Your task to perform on an android device: install app "Messenger Lite" Image 0: 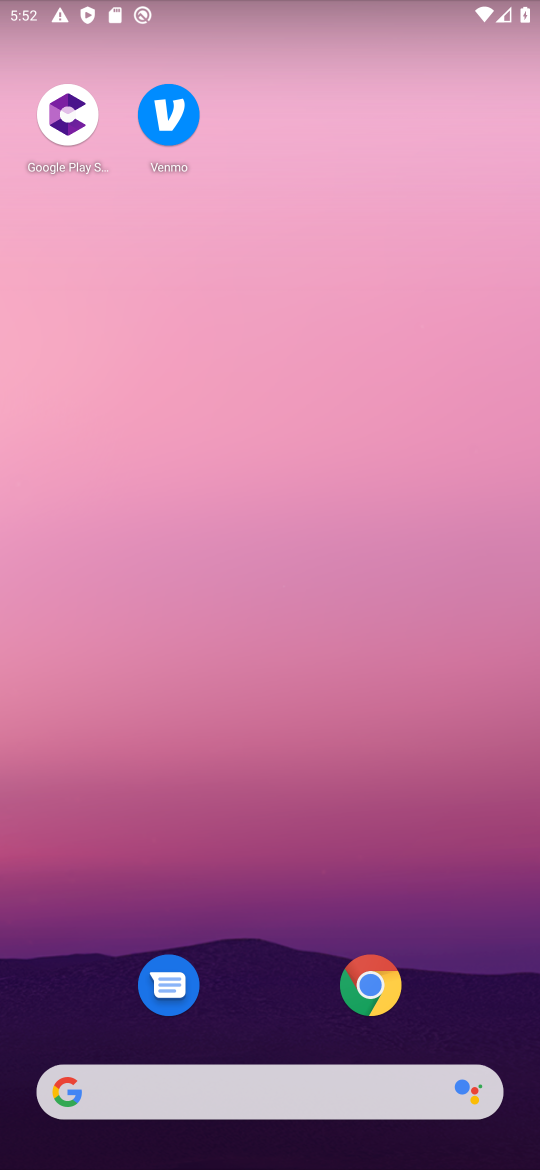
Step 0: drag from (241, 854) to (200, 311)
Your task to perform on an android device: install app "Messenger Lite" Image 1: 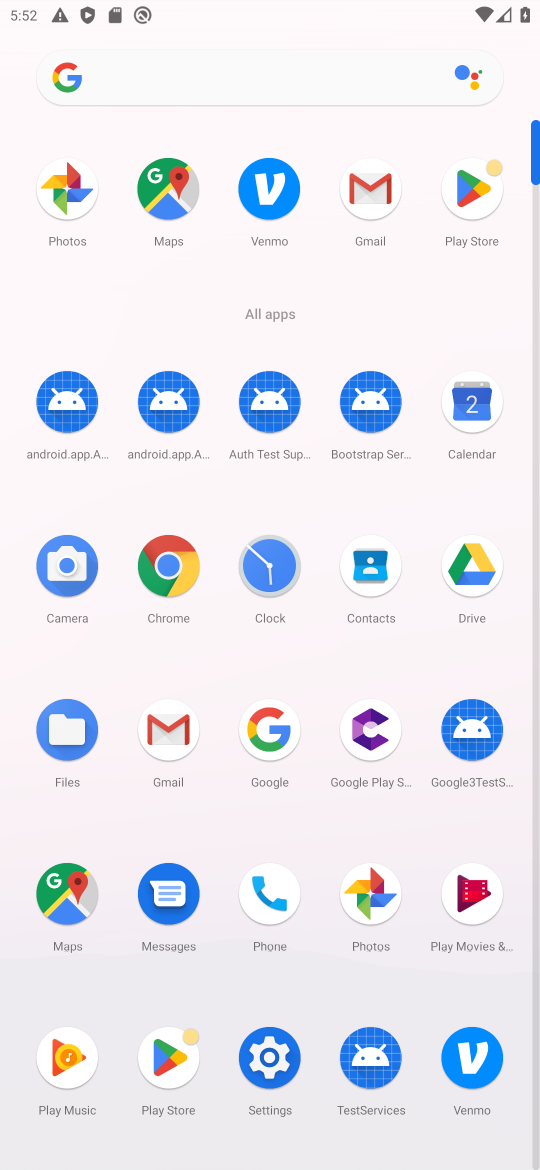
Step 1: click (443, 212)
Your task to perform on an android device: install app "Messenger Lite" Image 2: 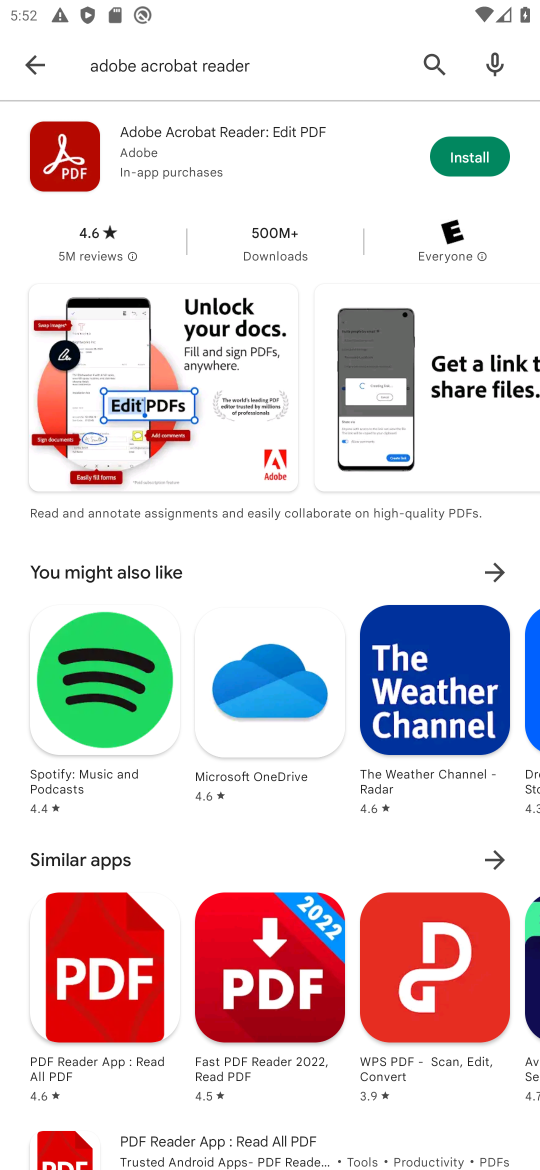
Step 2: click (438, 61)
Your task to perform on an android device: install app "Messenger Lite" Image 3: 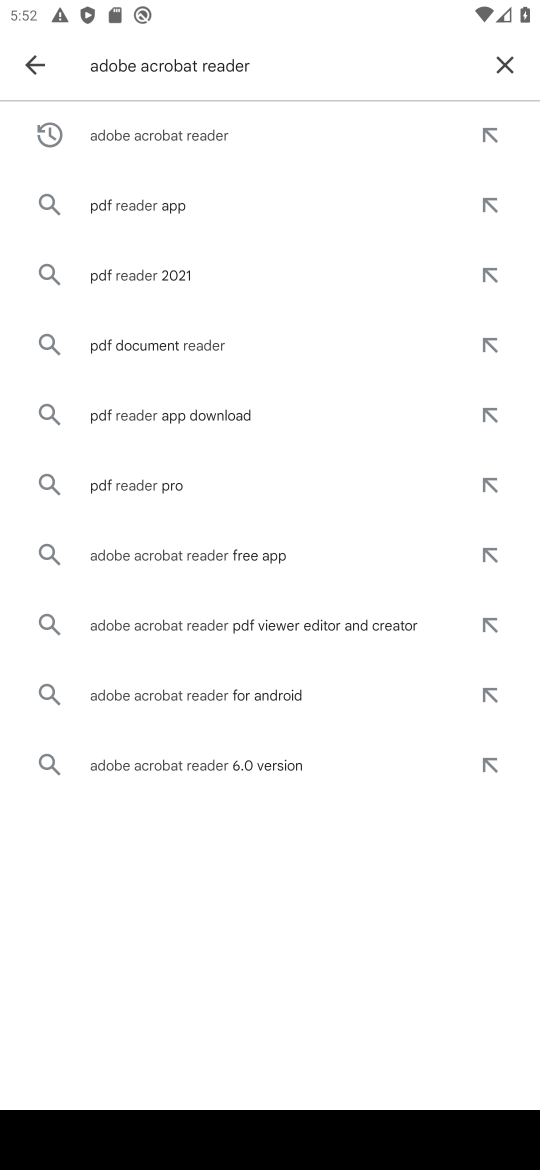
Step 3: click (505, 75)
Your task to perform on an android device: install app "Messenger Lite" Image 4: 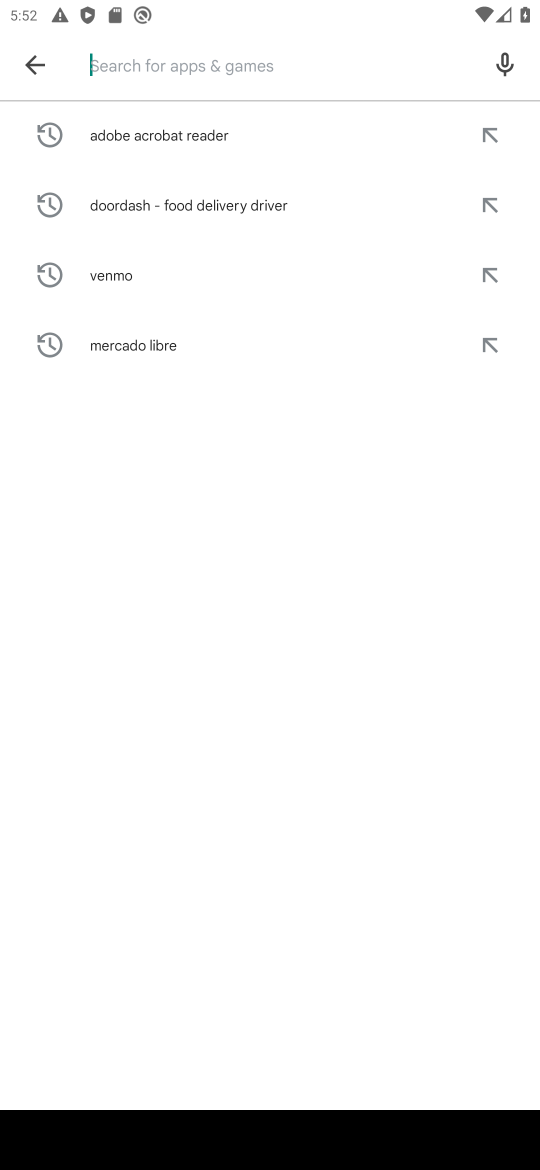
Step 4: type "Messenger Lite"
Your task to perform on an android device: install app "Messenger Lite" Image 5: 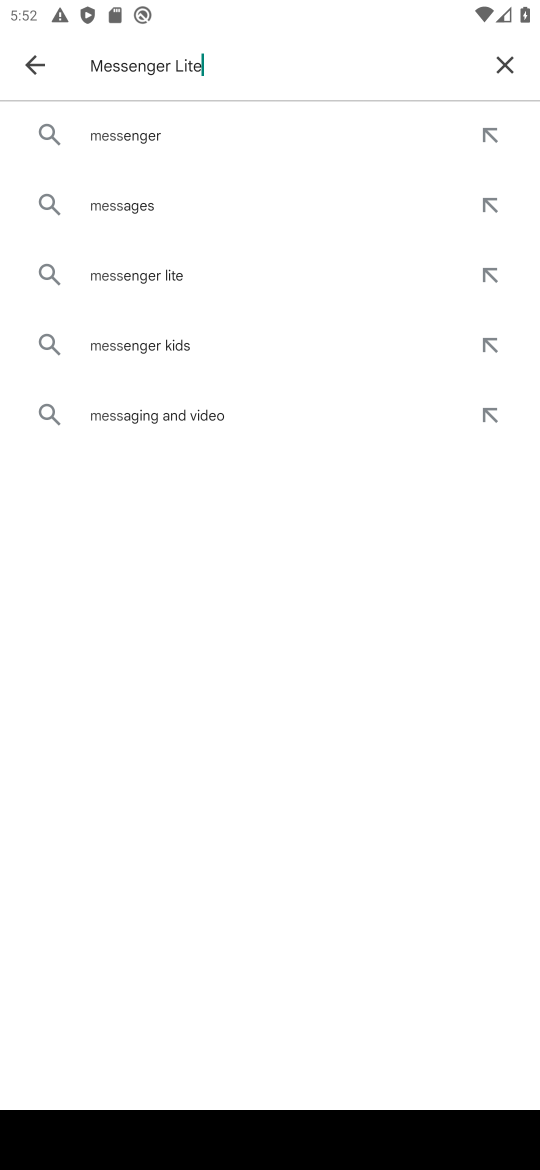
Step 5: type ""
Your task to perform on an android device: install app "Messenger Lite" Image 6: 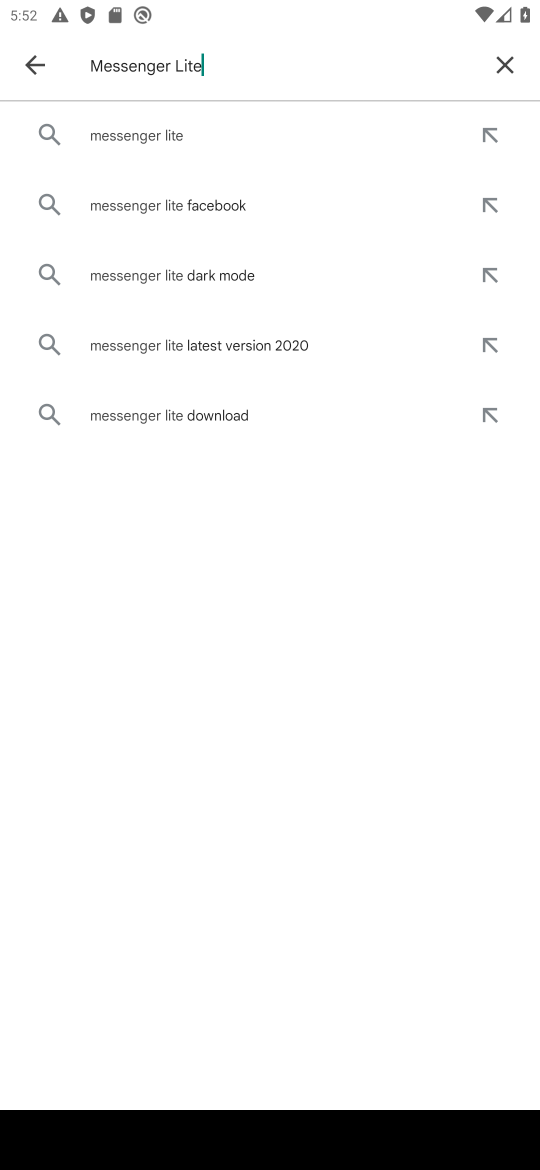
Step 6: click (239, 125)
Your task to perform on an android device: install app "Messenger Lite" Image 7: 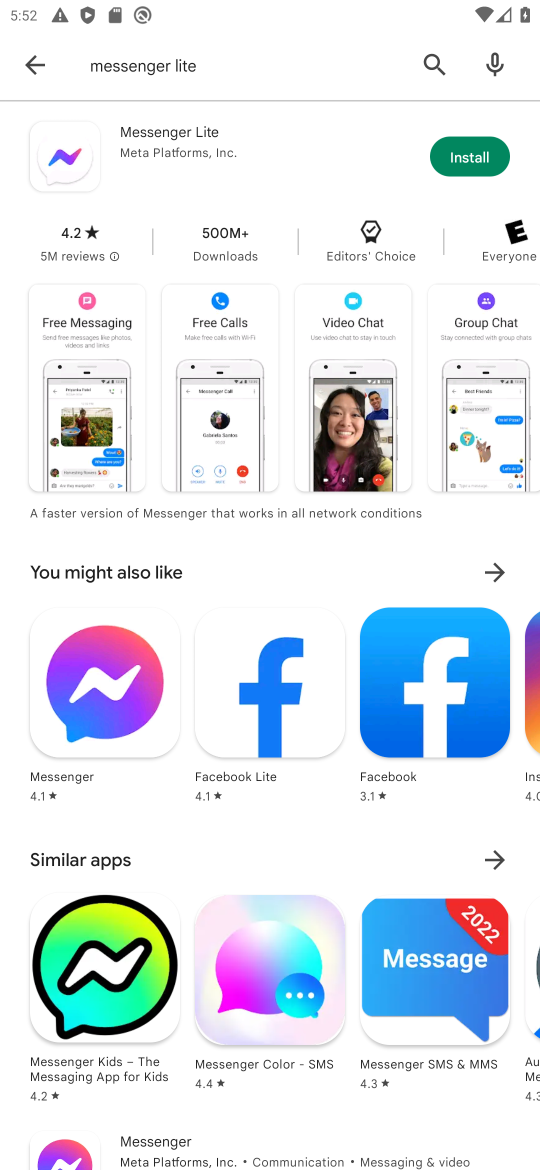
Step 7: click (453, 160)
Your task to perform on an android device: install app "Messenger Lite" Image 8: 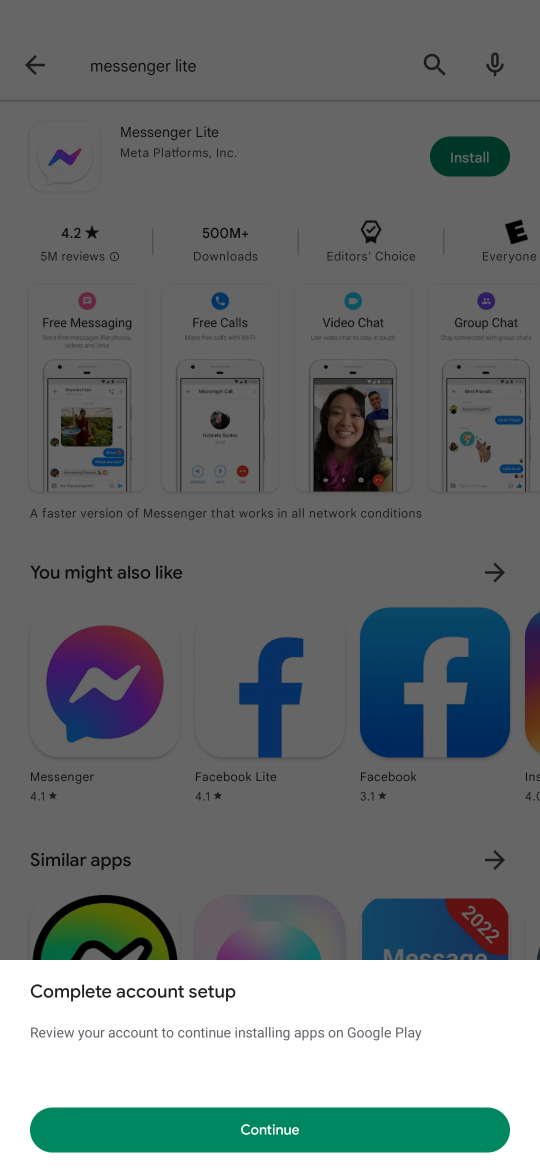
Step 8: click (278, 1117)
Your task to perform on an android device: install app "Messenger Lite" Image 9: 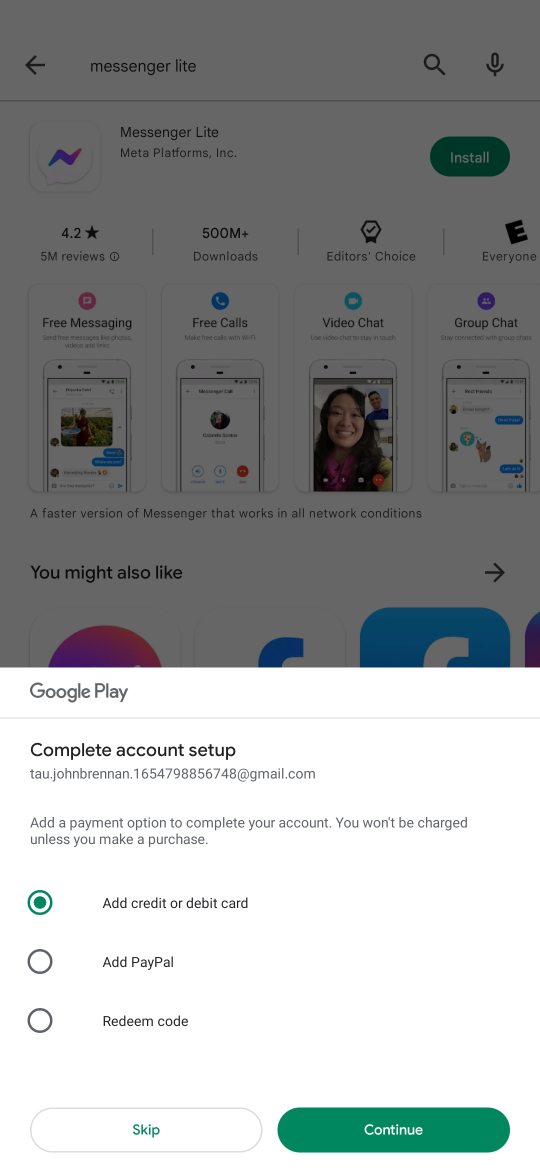
Step 9: click (202, 1128)
Your task to perform on an android device: install app "Messenger Lite" Image 10: 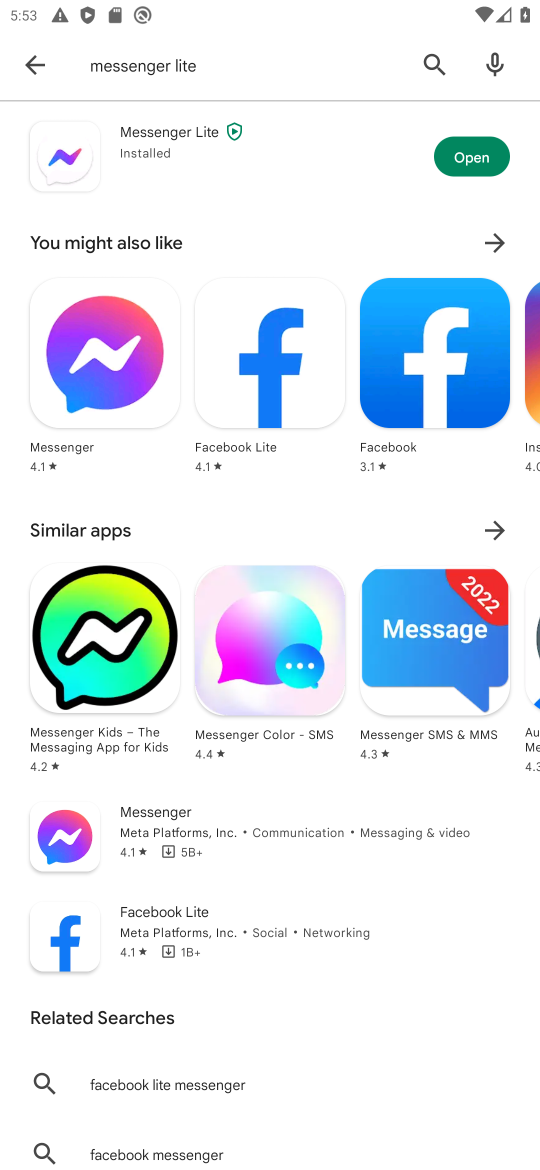
Step 10: task complete